Your task to perform on an android device: Open my contact list Image 0: 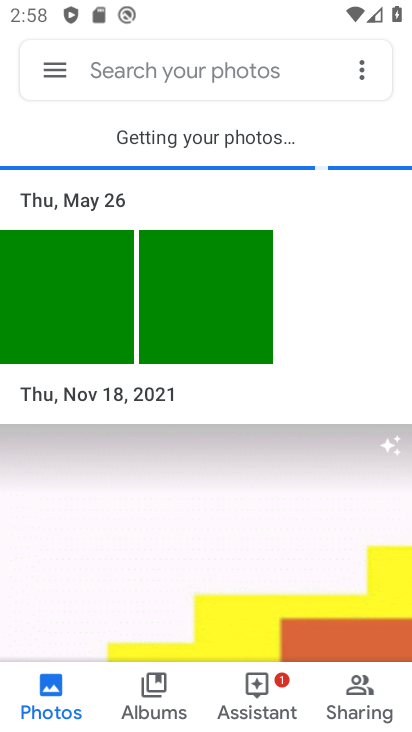
Step 0: press home button
Your task to perform on an android device: Open my contact list Image 1: 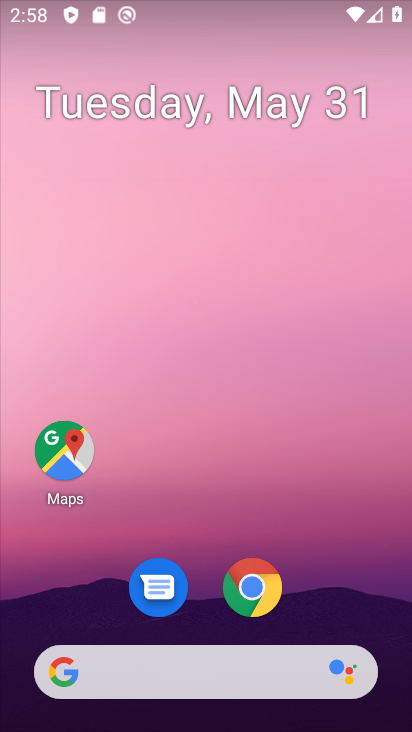
Step 1: drag from (193, 568) to (243, 4)
Your task to perform on an android device: Open my contact list Image 2: 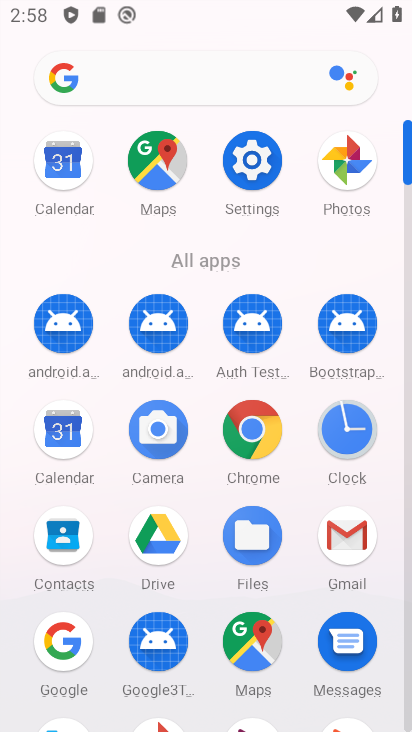
Step 2: click (66, 552)
Your task to perform on an android device: Open my contact list Image 3: 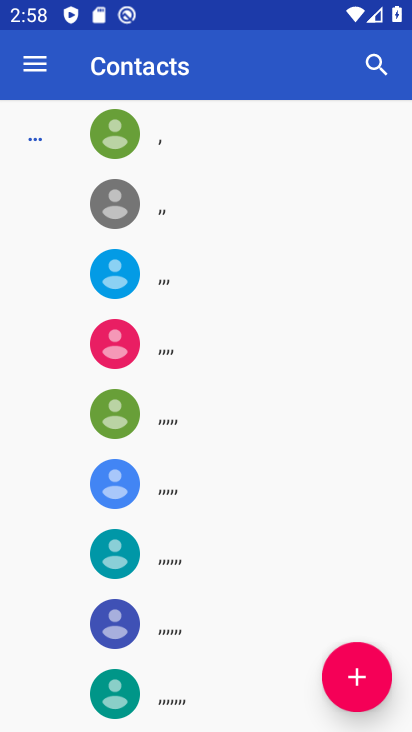
Step 3: task complete